Your task to perform on an android device: toggle show notifications on the lock screen Image 0: 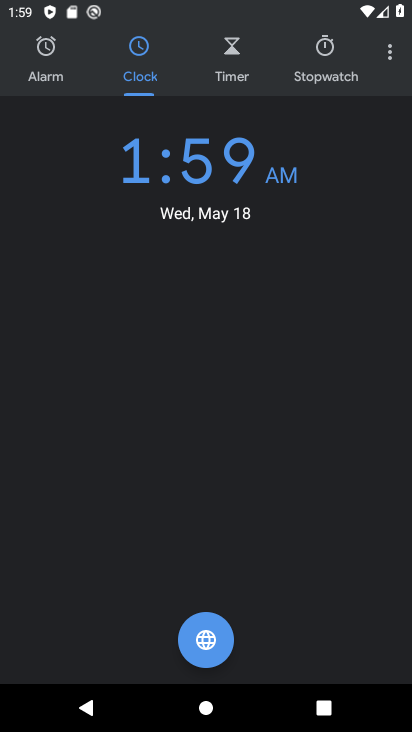
Step 0: press home button
Your task to perform on an android device: toggle show notifications on the lock screen Image 1: 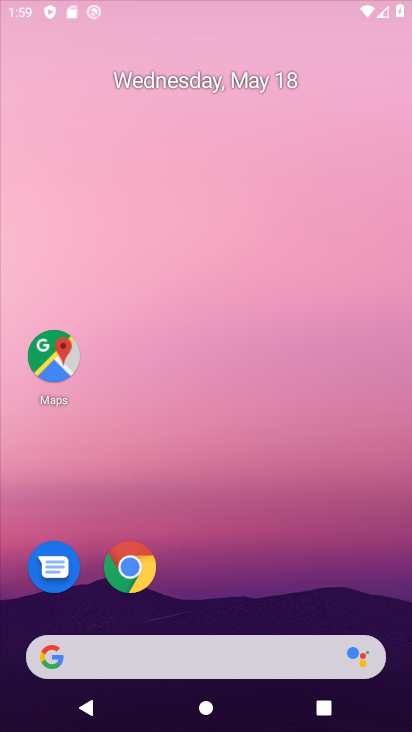
Step 1: drag from (276, 479) to (271, 216)
Your task to perform on an android device: toggle show notifications on the lock screen Image 2: 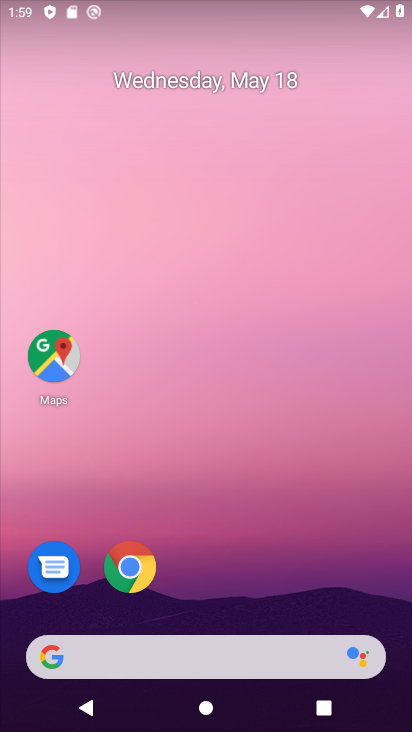
Step 2: drag from (319, 607) to (252, 192)
Your task to perform on an android device: toggle show notifications on the lock screen Image 3: 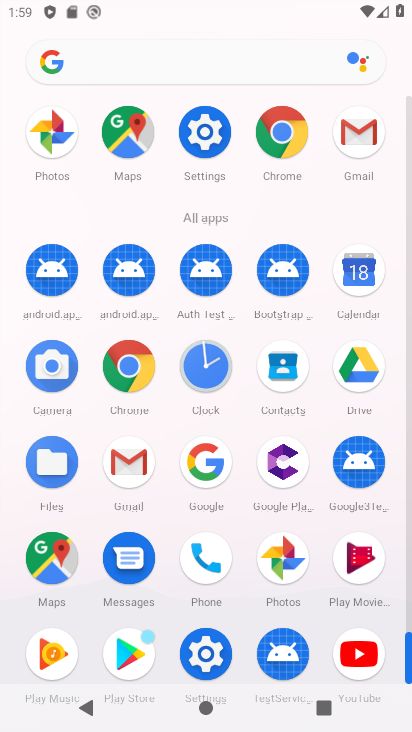
Step 3: click (204, 139)
Your task to perform on an android device: toggle show notifications on the lock screen Image 4: 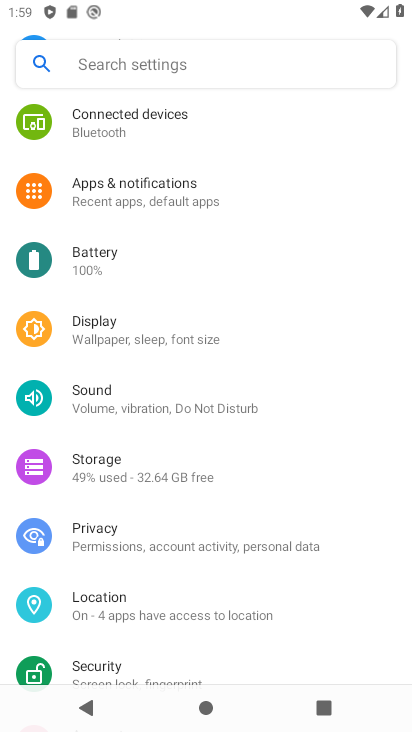
Step 4: drag from (193, 159) to (180, 566)
Your task to perform on an android device: toggle show notifications on the lock screen Image 5: 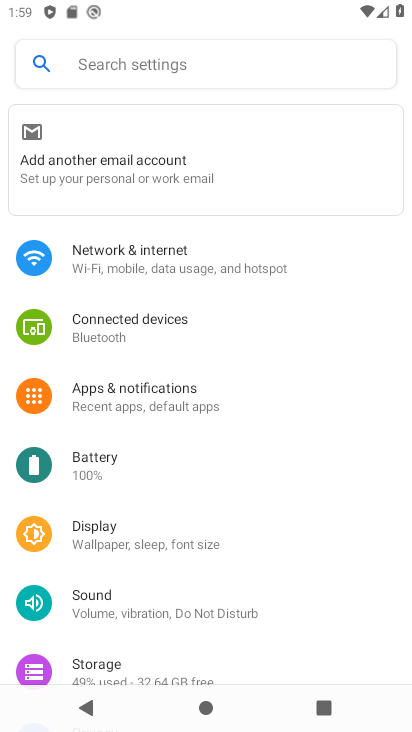
Step 5: click (132, 396)
Your task to perform on an android device: toggle show notifications on the lock screen Image 6: 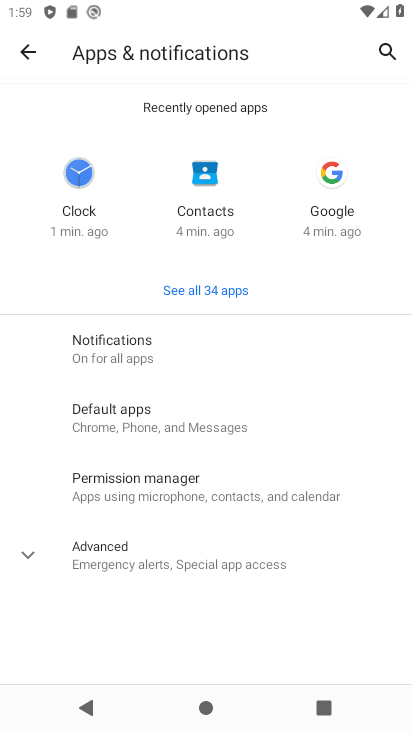
Step 6: click (140, 353)
Your task to perform on an android device: toggle show notifications on the lock screen Image 7: 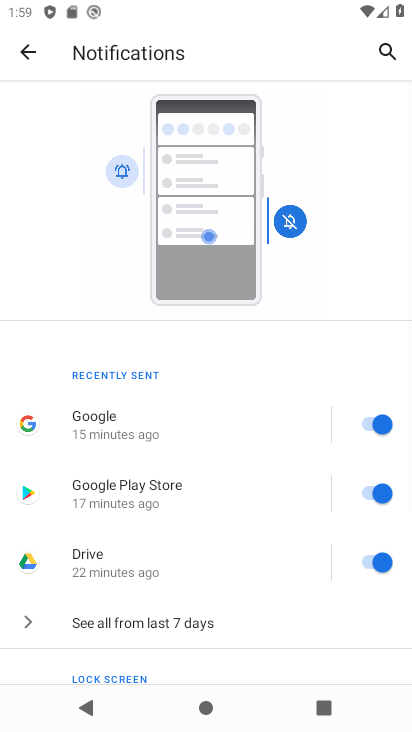
Step 7: drag from (179, 633) to (196, 324)
Your task to perform on an android device: toggle show notifications on the lock screen Image 8: 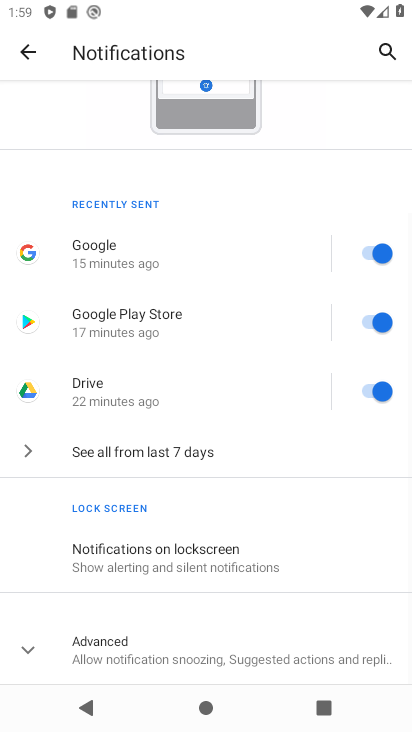
Step 8: click (148, 557)
Your task to perform on an android device: toggle show notifications on the lock screen Image 9: 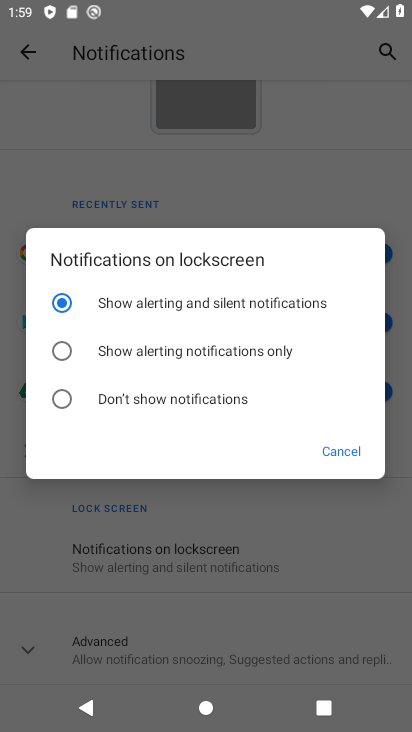
Step 9: click (146, 358)
Your task to perform on an android device: toggle show notifications on the lock screen Image 10: 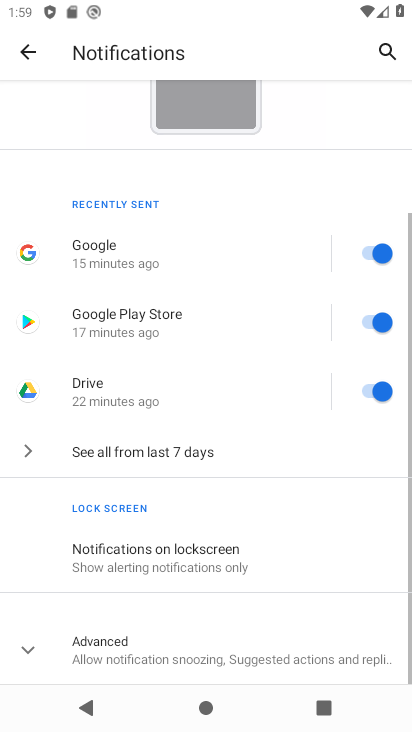
Step 10: task complete